Your task to perform on an android device: Go to settings Image 0: 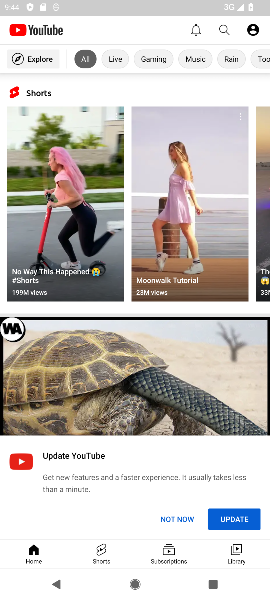
Step 0: press home button
Your task to perform on an android device: Go to settings Image 1: 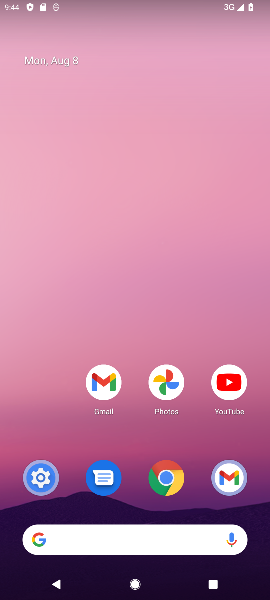
Step 1: drag from (125, 428) to (137, 46)
Your task to perform on an android device: Go to settings Image 2: 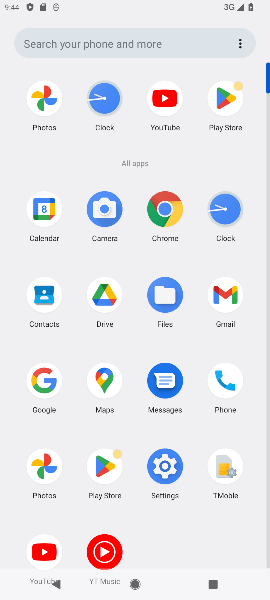
Step 2: click (172, 463)
Your task to perform on an android device: Go to settings Image 3: 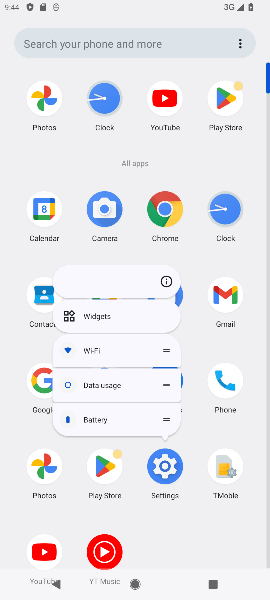
Step 3: click (164, 466)
Your task to perform on an android device: Go to settings Image 4: 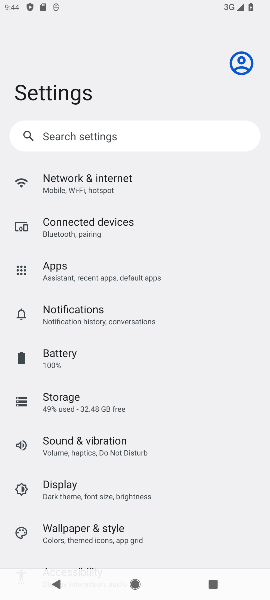
Step 4: task complete